Your task to perform on an android device: Open Chrome and go to settings Image 0: 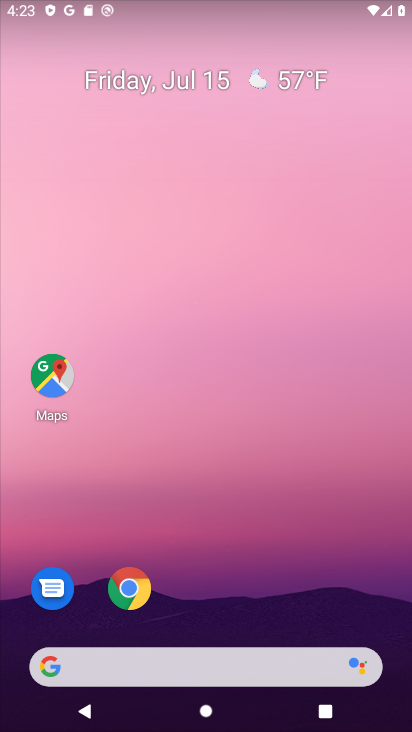
Step 0: click (128, 589)
Your task to perform on an android device: Open Chrome and go to settings Image 1: 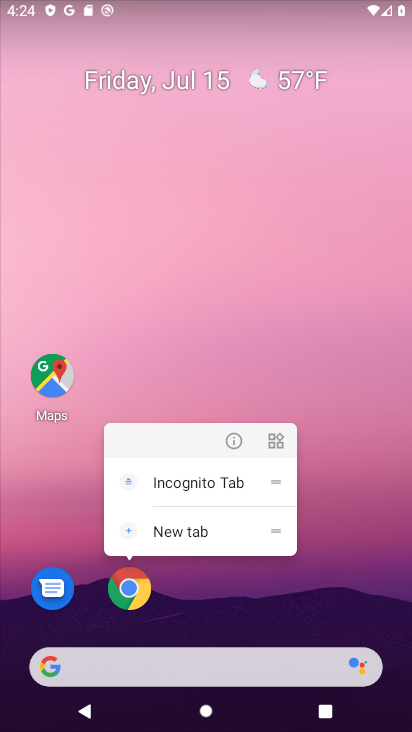
Step 1: click (134, 598)
Your task to perform on an android device: Open Chrome and go to settings Image 2: 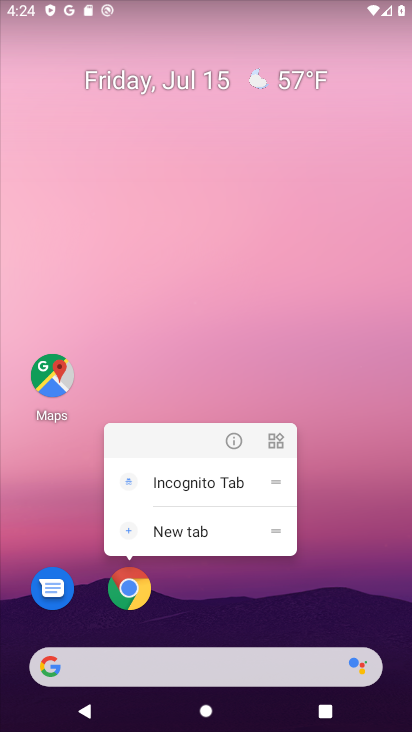
Step 2: click (134, 598)
Your task to perform on an android device: Open Chrome and go to settings Image 3: 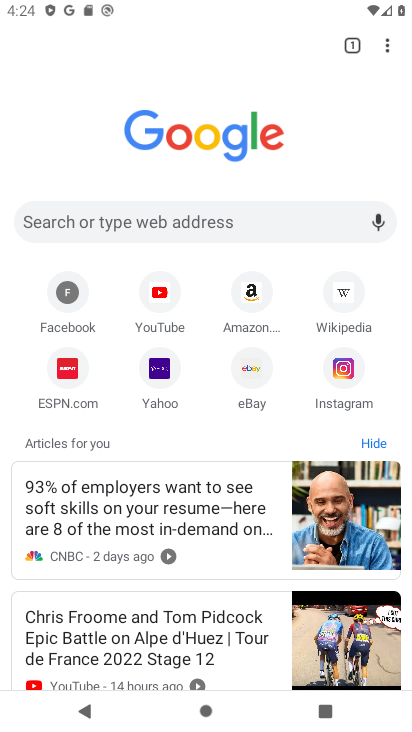
Step 3: task complete